Your task to perform on an android device: set the timer Image 0: 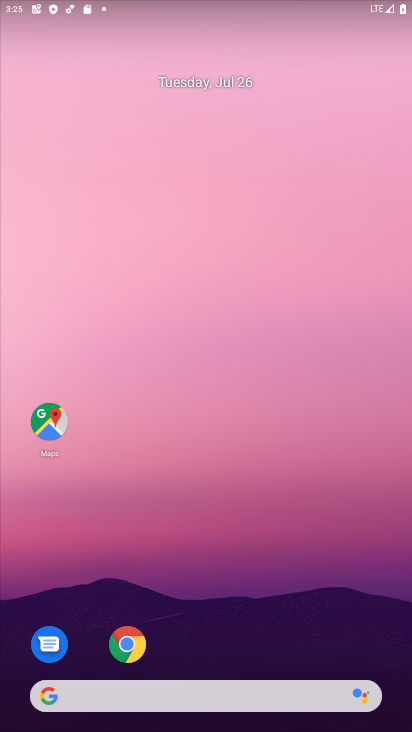
Step 0: drag from (192, 684) to (224, 184)
Your task to perform on an android device: set the timer Image 1: 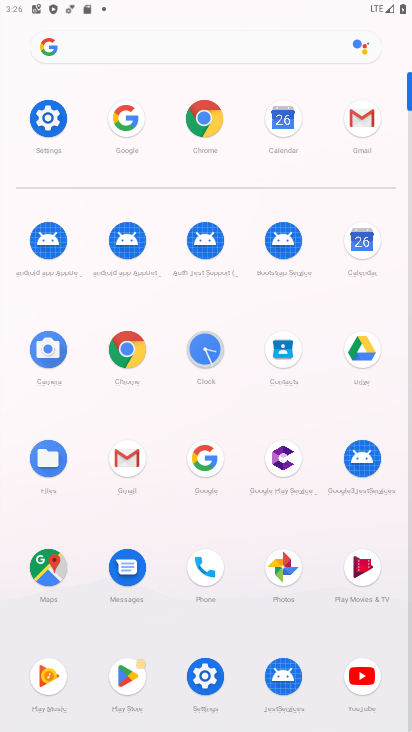
Step 1: click (203, 352)
Your task to perform on an android device: set the timer Image 2: 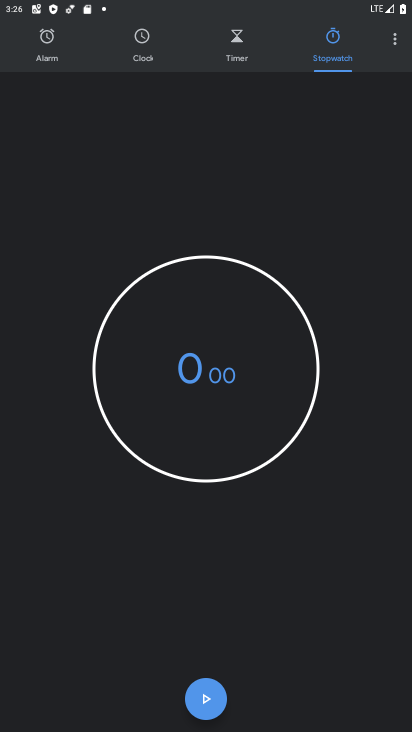
Step 2: click (233, 44)
Your task to perform on an android device: set the timer Image 3: 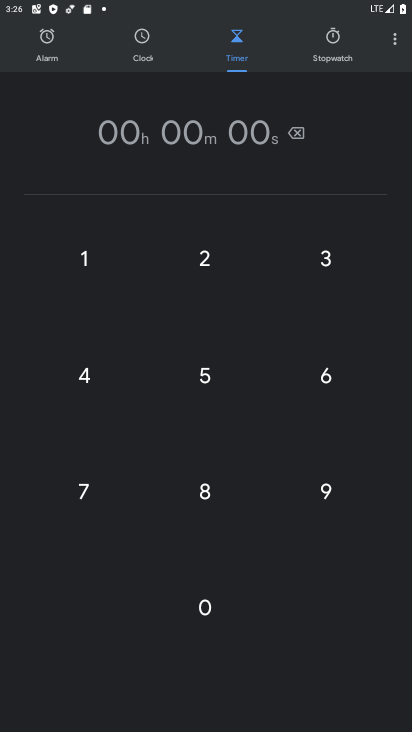
Step 3: click (89, 252)
Your task to perform on an android device: set the timer Image 4: 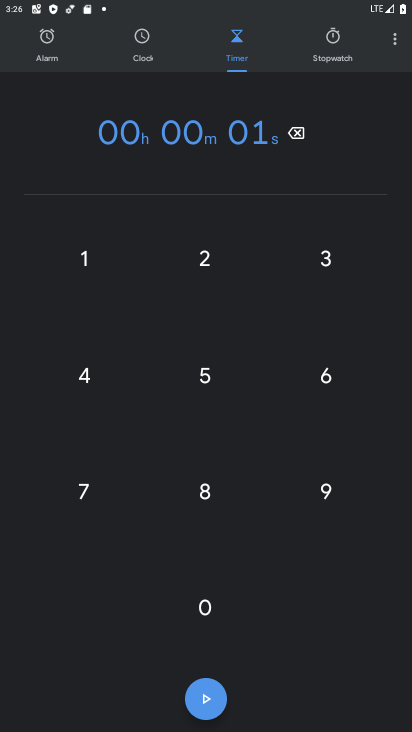
Step 4: click (213, 596)
Your task to perform on an android device: set the timer Image 5: 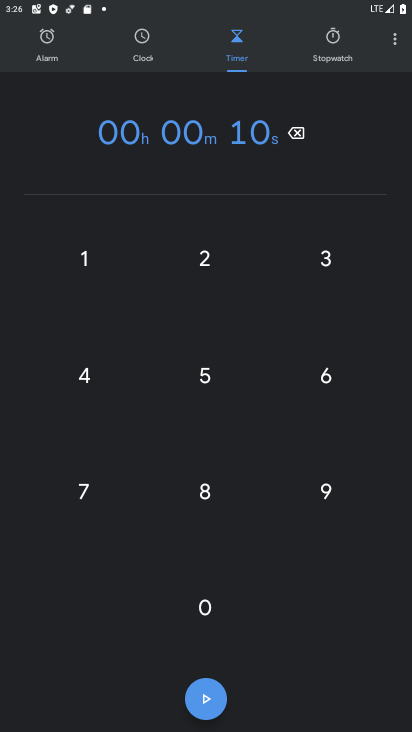
Step 5: click (213, 596)
Your task to perform on an android device: set the timer Image 6: 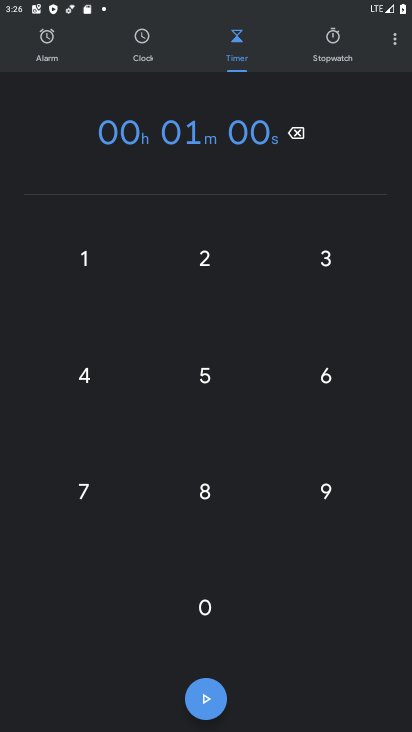
Step 6: click (198, 611)
Your task to perform on an android device: set the timer Image 7: 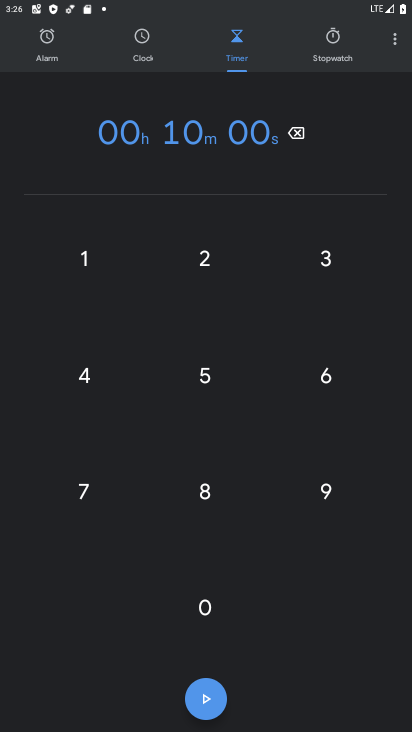
Step 7: click (205, 710)
Your task to perform on an android device: set the timer Image 8: 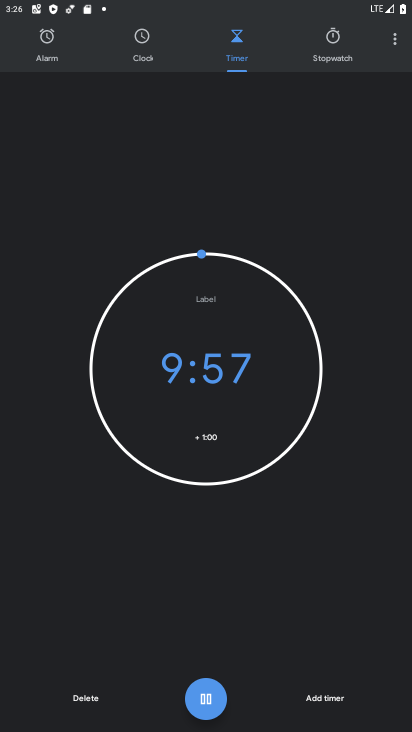
Step 8: task complete